Your task to perform on an android device: toggle wifi Image 0: 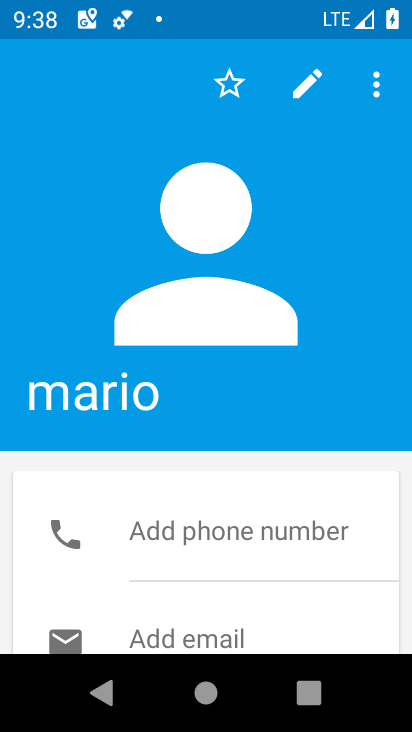
Step 0: press home button
Your task to perform on an android device: toggle wifi Image 1: 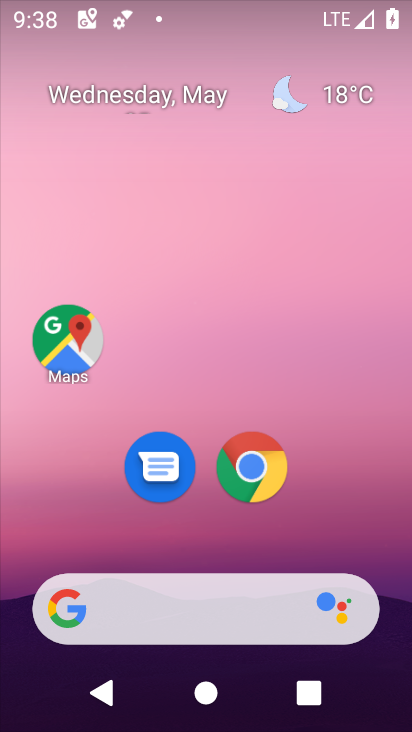
Step 1: drag from (330, 467) to (324, 105)
Your task to perform on an android device: toggle wifi Image 2: 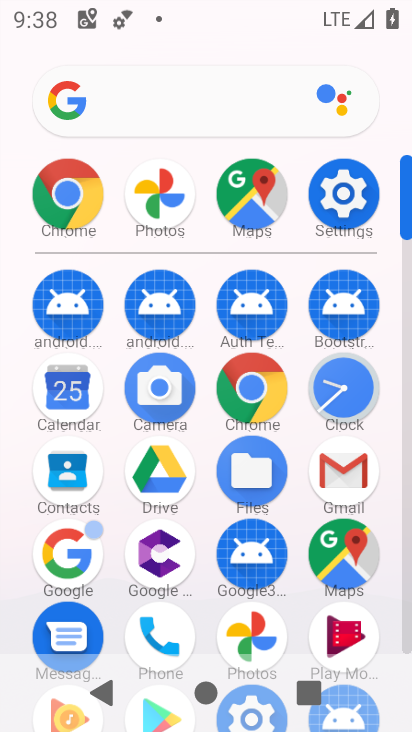
Step 2: click (322, 196)
Your task to perform on an android device: toggle wifi Image 3: 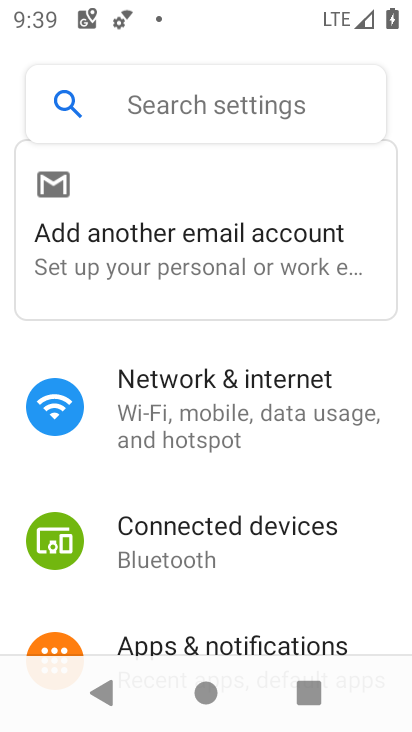
Step 3: click (240, 385)
Your task to perform on an android device: toggle wifi Image 4: 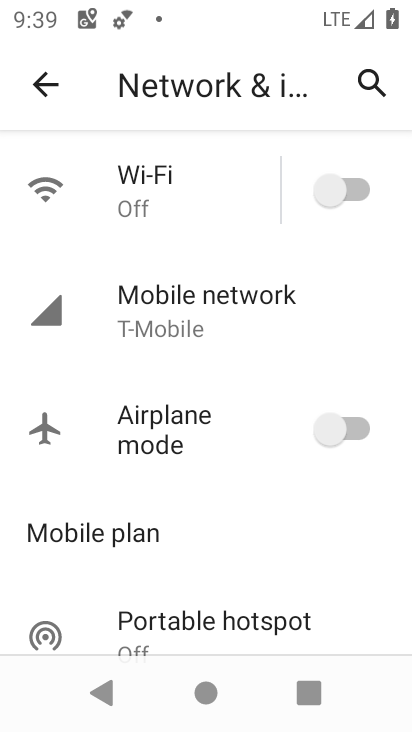
Step 4: click (201, 170)
Your task to perform on an android device: toggle wifi Image 5: 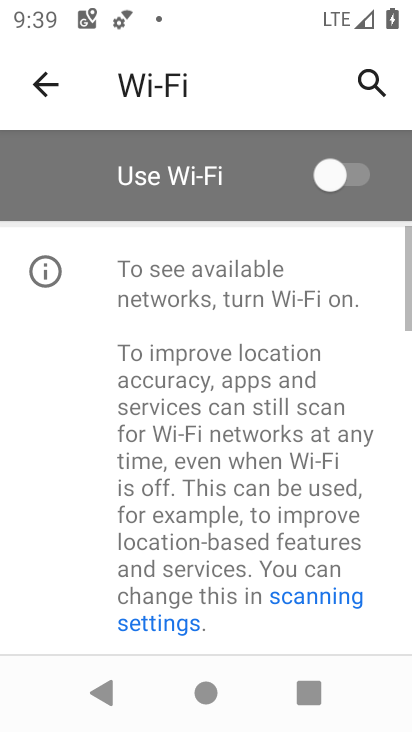
Step 5: click (368, 177)
Your task to perform on an android device: toggle wifi Image 6: 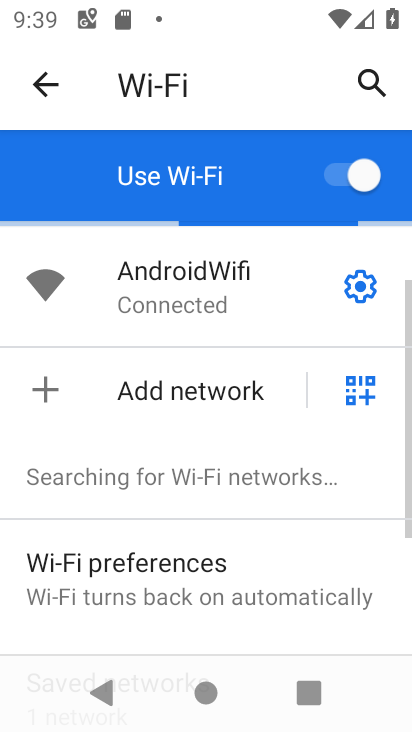
Step 6: task complete